Your task to perform on an android device: toggle wifi Image 0: 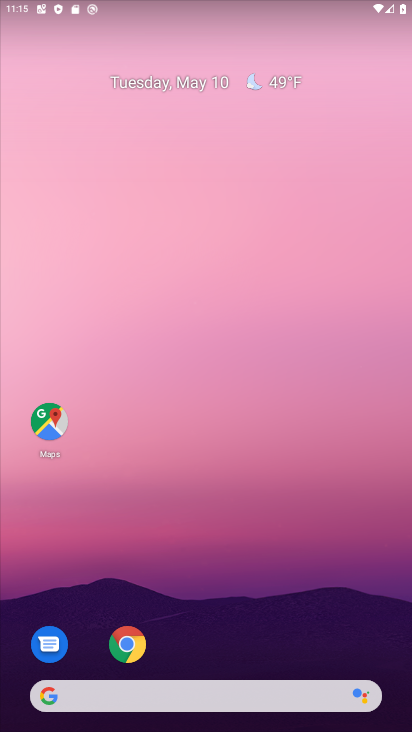
Step 0: drag from (190, 650) to (198, 147)
Your task to perform on an android device: toggle wifi Image 1: 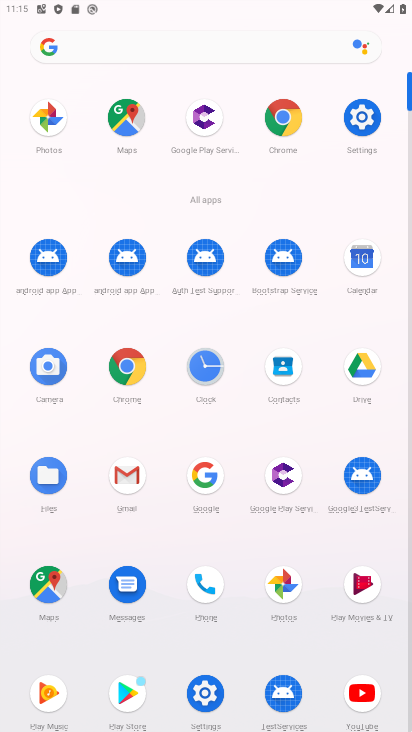
Step 1: click (354, 117)
Your task to perform on an android device: toggle wifi Image 2: 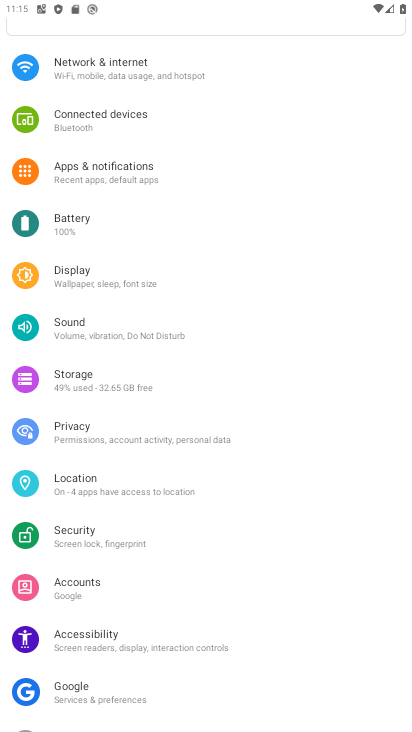
Step 2: drag from (197, 199) to (207, 609)
Your task to perform on an android device: toggle wifi Image 3: 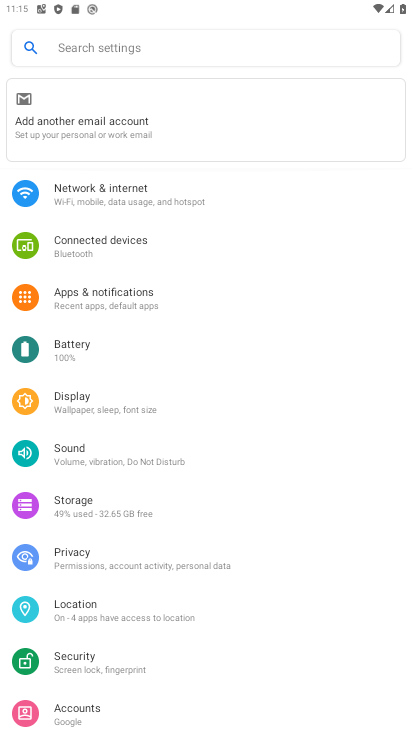
Step 3: click (111, 213)
Your task to perform on an android device: toggle wifi Image 4: 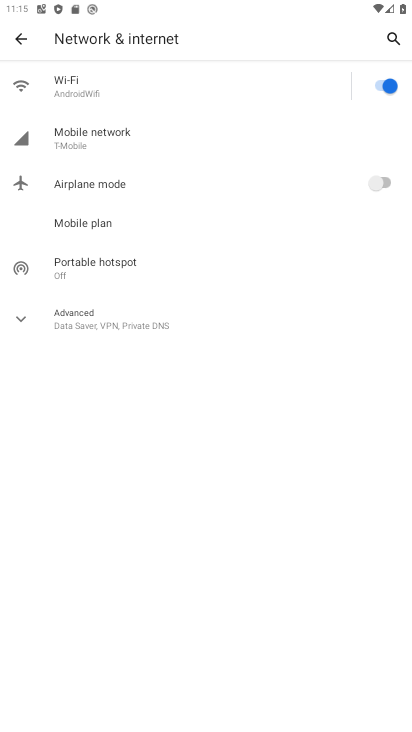
Step 4: click (373, 85)
Your task to perform on an android device: toggle wifi Image 5: 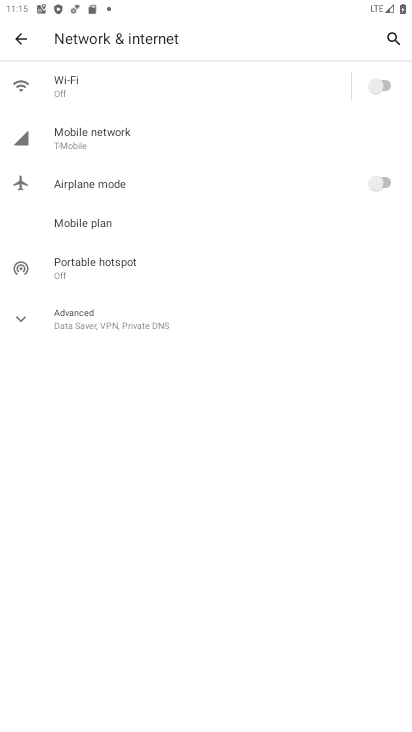
Step 5: task complete